Your task to perform on an android device: turn on data saver in the chrome app Image 0: 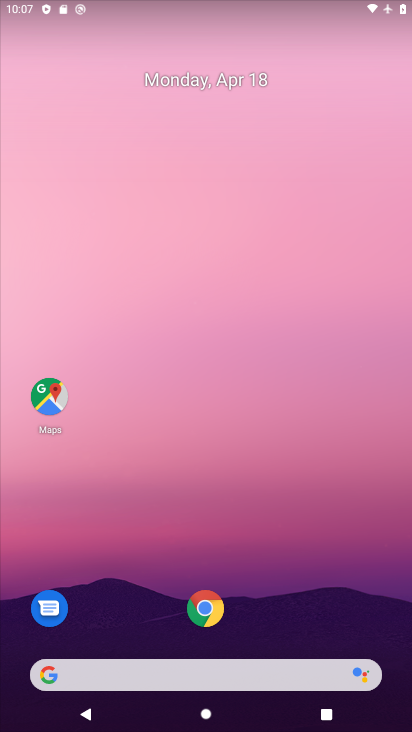
Step 0: click (206, 623)
Your task to perform on an android device: turn on data saver in the chrome app Image 1: 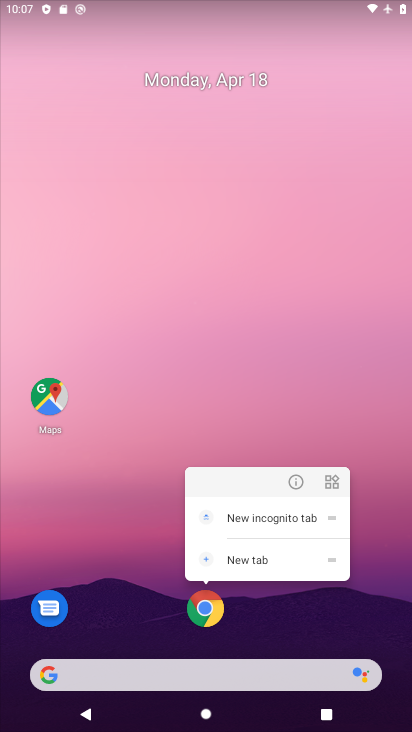
Step 1: click (206, 623)
Your task to perform on an android device: turn on data saver in the chrome app Image 2: 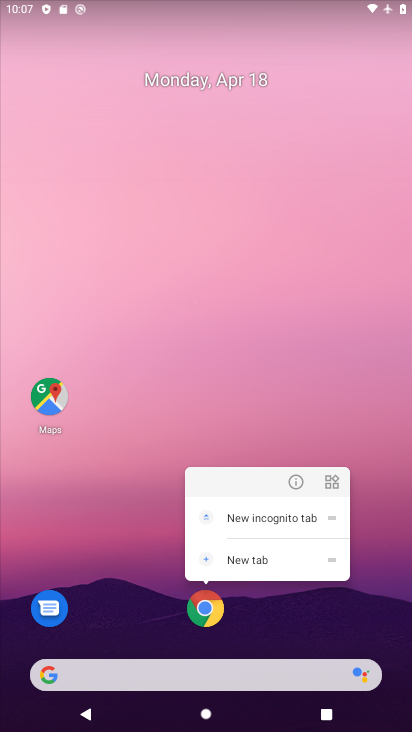
Step 2: click (202, 602)
Your task to perform on an android device: turn on data saver in the chrome app Image 3: 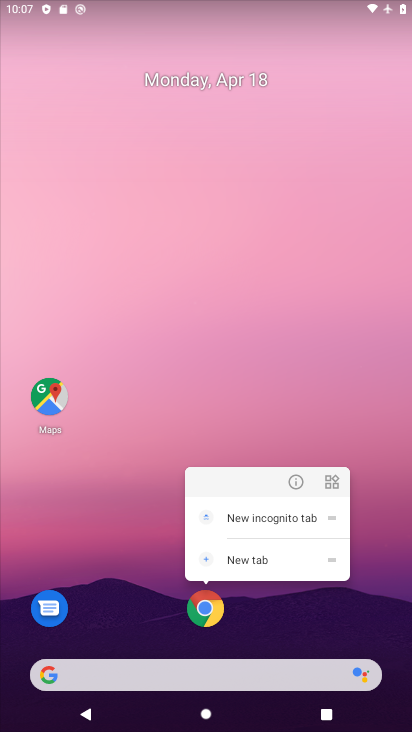
Step 3: click (218, 604)
Your task to perform on an android device: turn on data saver in the chrome app Image 4: 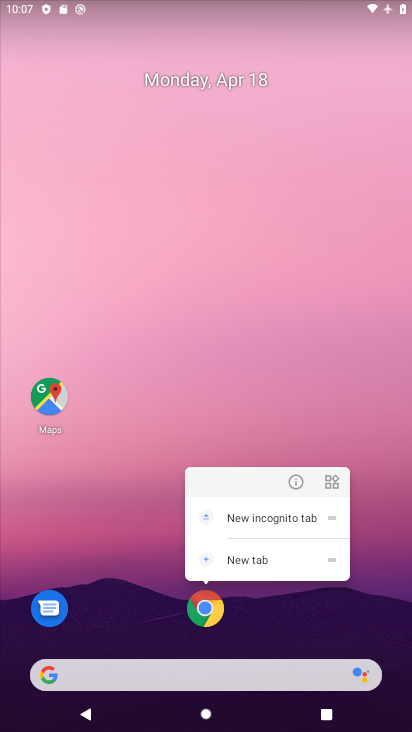
Step 4: click (193, 609)
Your task to perform on an android device: turn on data saver in the chrome app Image 5: 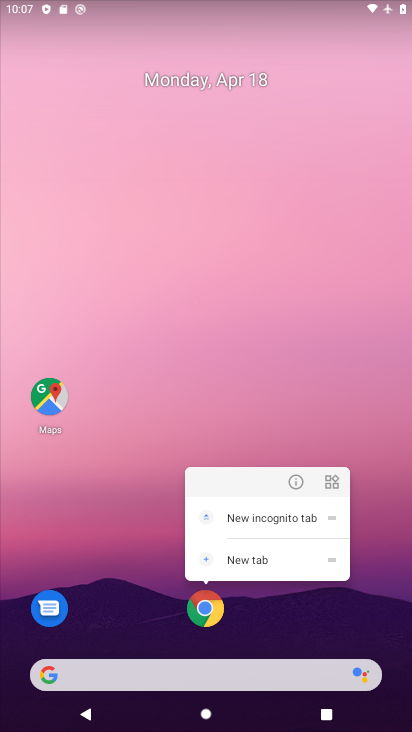
Step 5: click (208, 616)
Your task to perform on an android device: turn on data saver in the chrome app Image 6: 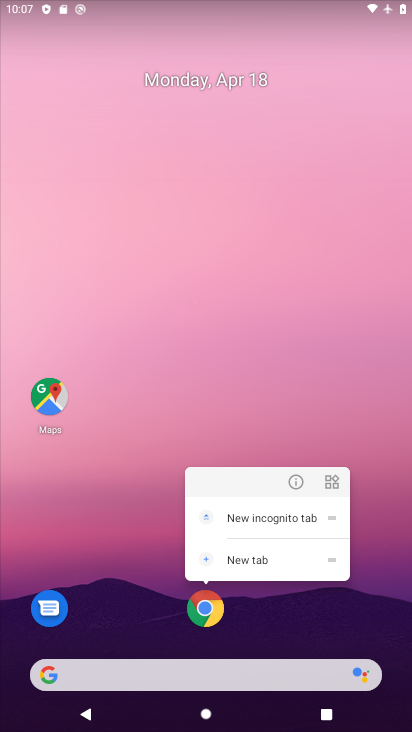
Step 6: click (208, 616)
Your task to perform on an android device: turn on data saver in the chrome app Image 7: 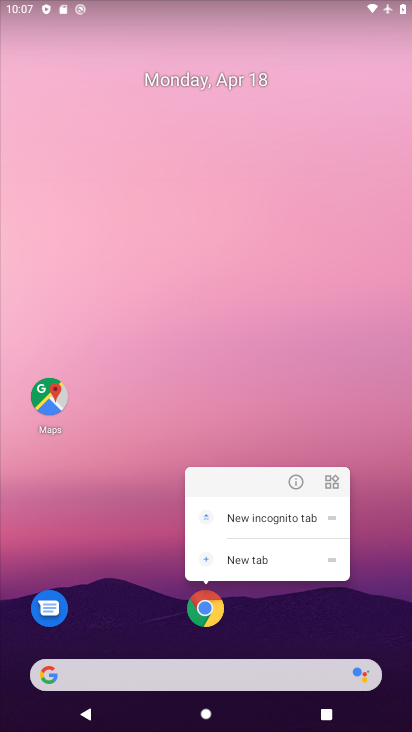
Step 7: click (208, 616)
Your task to perform on an android device: turn on data saver in the chrome app Image 8: 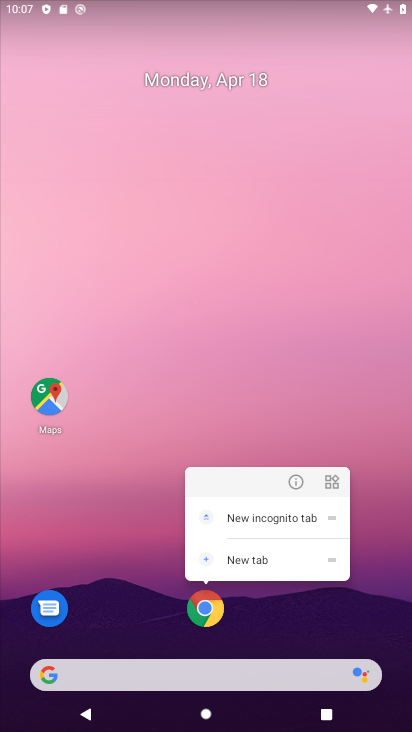
Step 8: click (208, 616)
Your task to perform on an android device: turn on data saver in the chrome app Image 9: 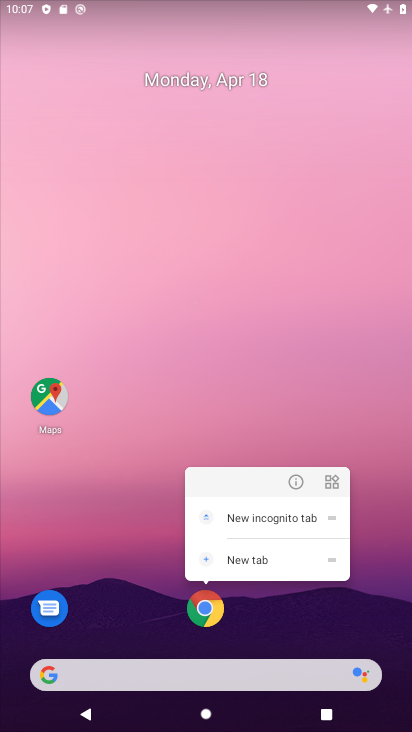
Step 9: click (208, 616)
Your task to perform on an android device: turn on data saver in the chrome app Image 10: 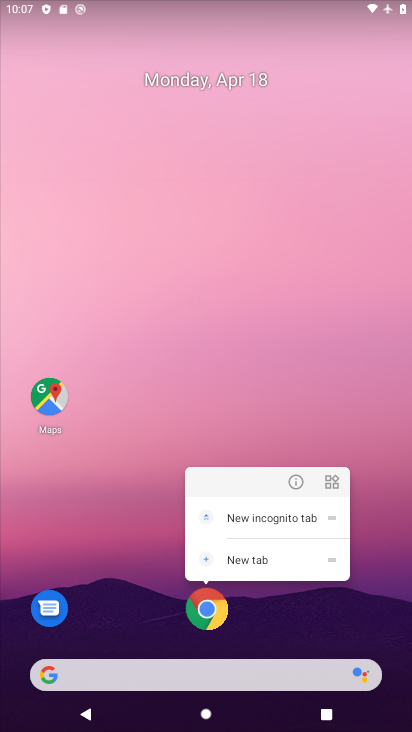
Step 10: click (208, 616)
Your task to perform on an android device: turn on data saver in the chrome app Image 11: 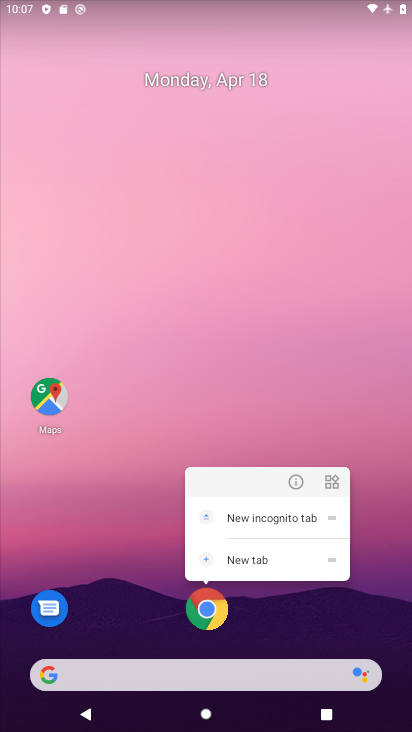
Step 11: click (208, 616)
Your task to perform on an android device: turn on data saver in the chrome app Image 12: 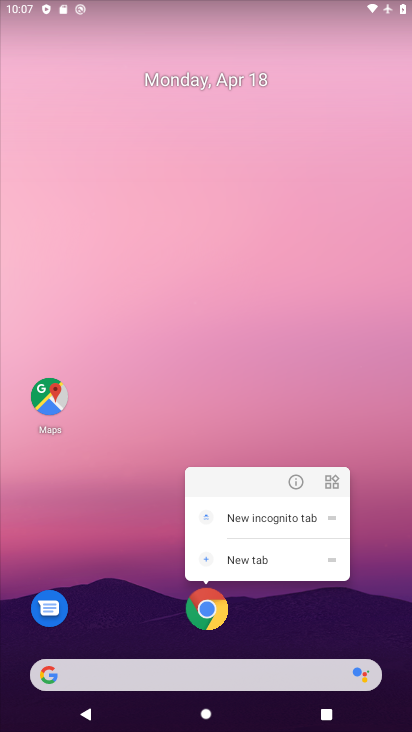
Step 12: click (208, 616)
Your task to perform on an android device: turn on data saver in the chrome app Image 13: 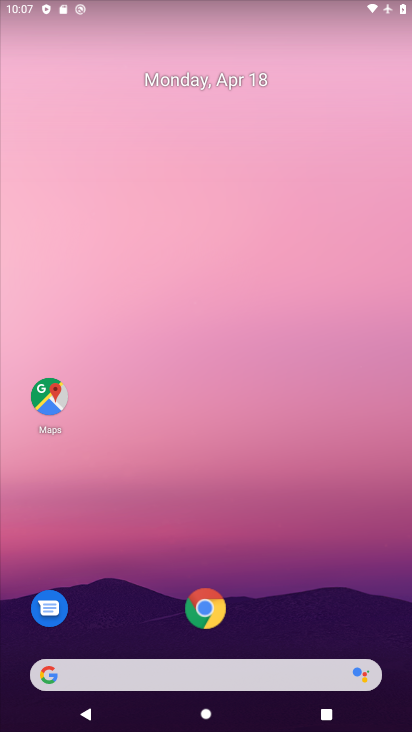
Step 13: click (208, 616)
Your task to perform on an android device: turn on data saver in the chrome app Image 14: 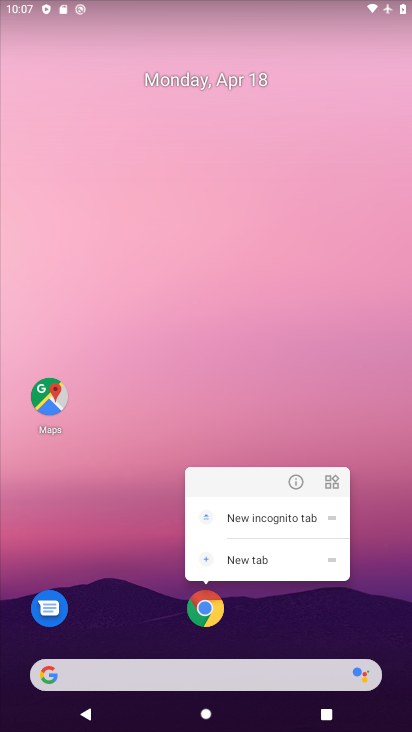
Step 14: click (208, 616)
Your task to perform on an android device: turn on data saver in the chrome app Image 15: 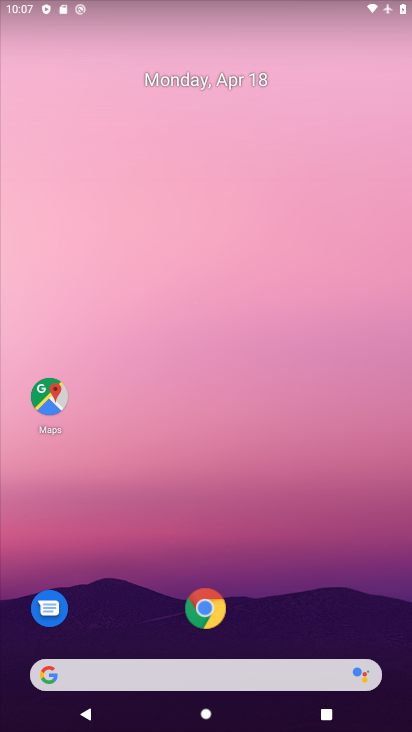
Step 15: click (219, 616)
Your task to perform on an android device: turn on data saver in the chrome app Image 16: 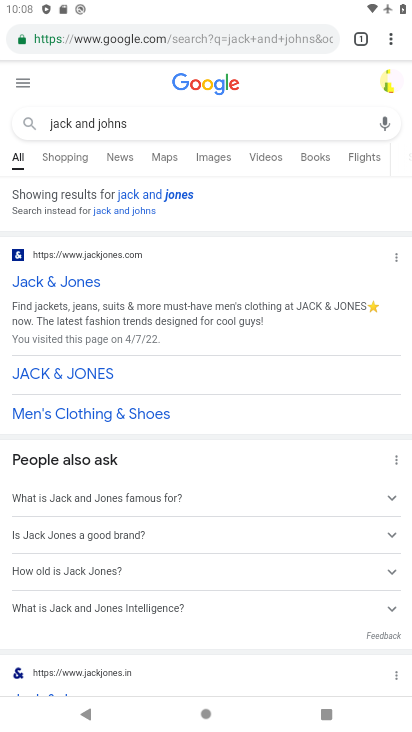
Step 16: drag from (390, 42) to (277, 431)
Your task to perform on an android device: turn on data saver in the chrome app Image 17: 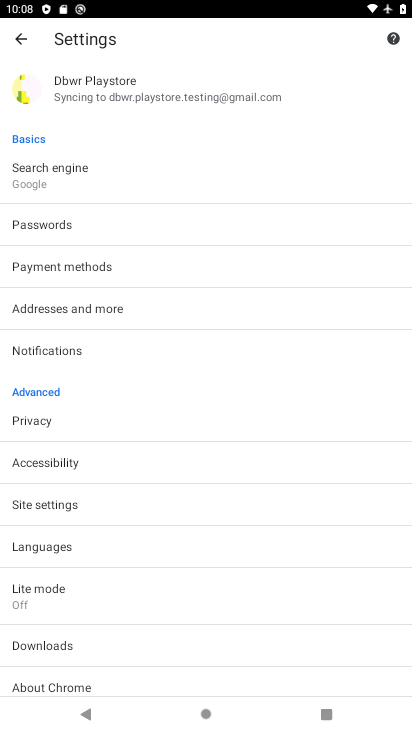
Step 17: click (50, 616)
Your task to perform on an android device: turn on data saver in the chrome app Image 18: 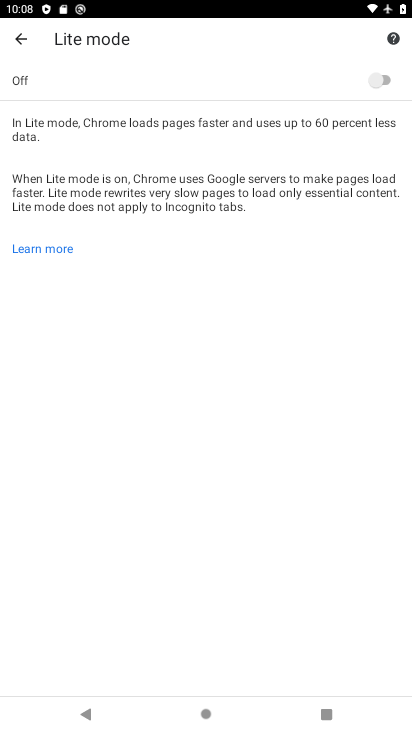
Step 18: click (381, 81)
Your task to perform on an android device: turn on data saver in the chrome app Image 19: 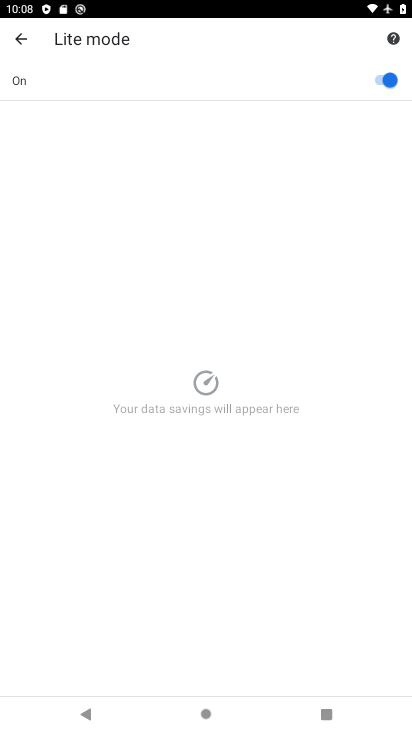
Step 19: task complete